Your task to perform on an android device: change the clock display to show seconds Image 0: 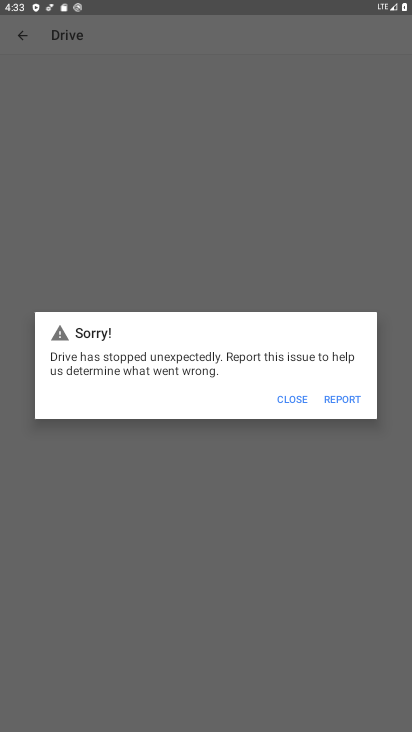
Step 0: press home button
Your task to perform on an android device: change the clock display to show seconds Image 1: 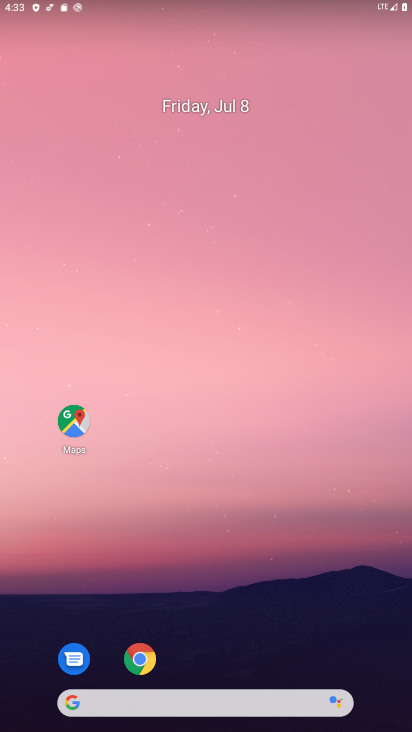
Step 1: drag from (283, 657) to (281, 60)
Your task to perform on an android device: change the clock display to show seconds Image 2: 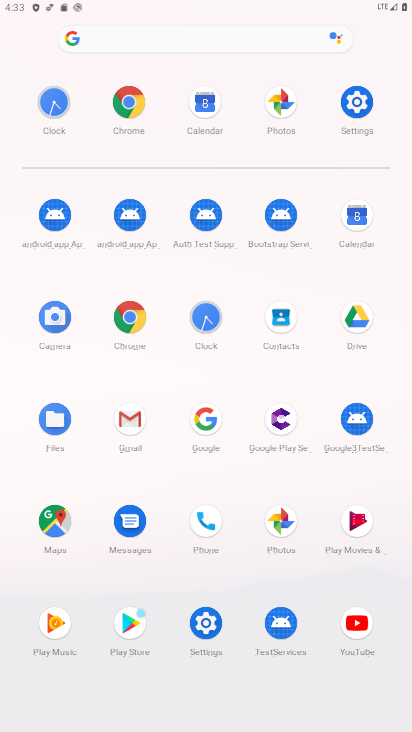
Step 2: click (225, 322)
Your task to perform on an android device: change the clock display to show seconds Image 3: 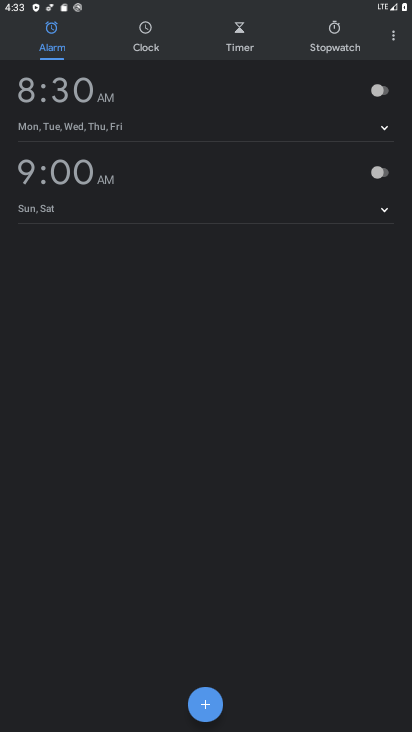
Step 3: click (407, 37)
Your task to perform on an android device: change the clock display to show seconds Image 4: 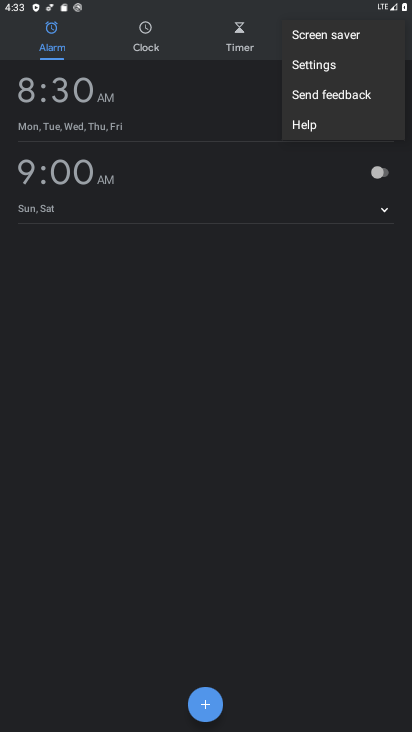
Step 4: click (307, 73)
Your task to perform on an android device: change the clock display to show seconds Image 5: 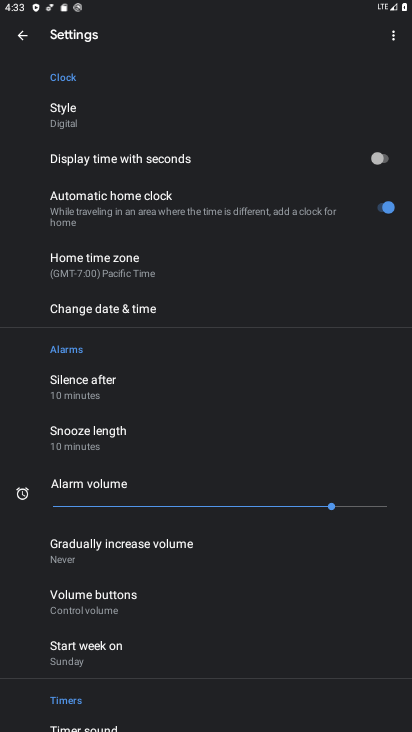
Step 5: click (378, 161)
Your task to perform on an android device: change the clock display to show seconds Image 6: 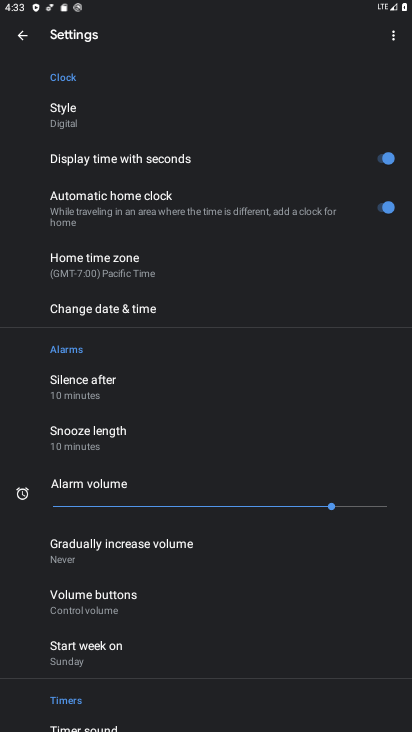
Step 6: task complete